Your task to perform on an android device: turn pop-ups off in chrome Image 0: 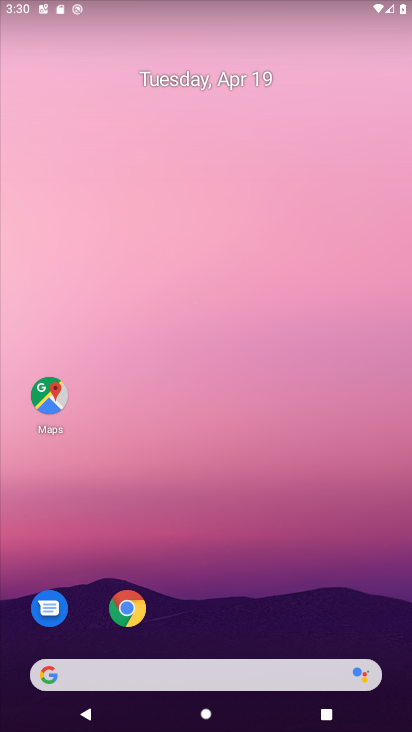
Step 0: click (133, 604)
Your task to perform on an android device: turn pop-ups off in chrome Image 1: 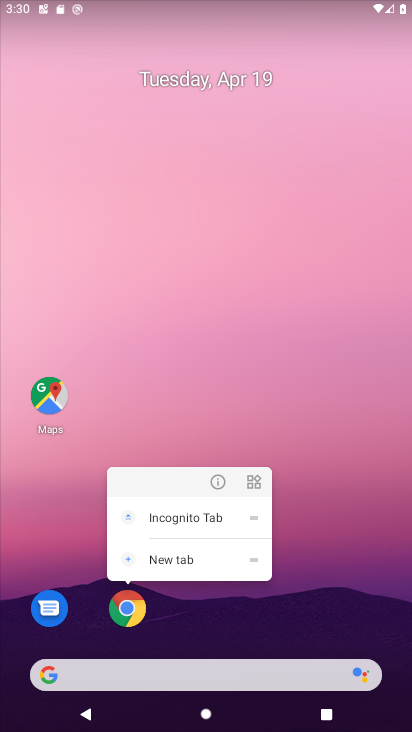
Step 1: click (377, 531)
Your task to perform on an android device: turn pop-ups off in chrome Image 2: 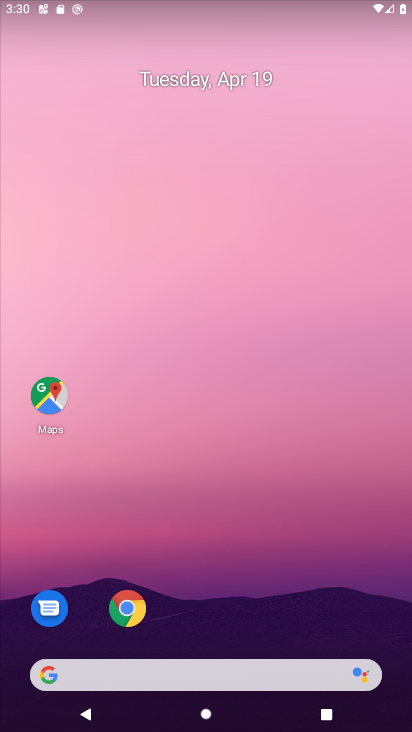
Step 2: drag from (295, 588) to (347, 123)
Your task to perform on an android device: turn pop-ups off in chrome Image 3: 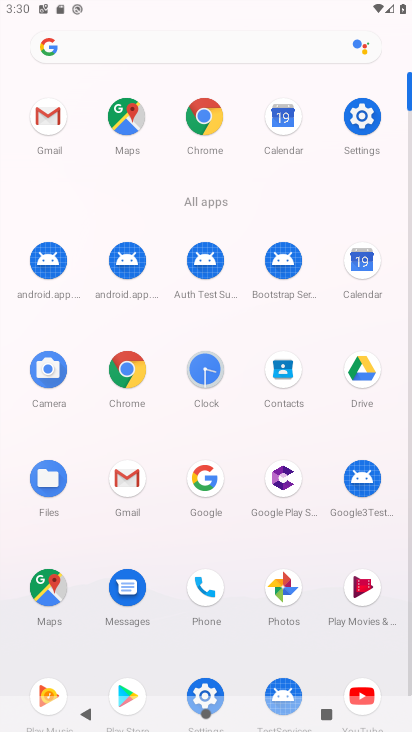
Step 3: click (124, 374)
Your task to perform on an android device: turn pop-ups off in chrome Image 4: 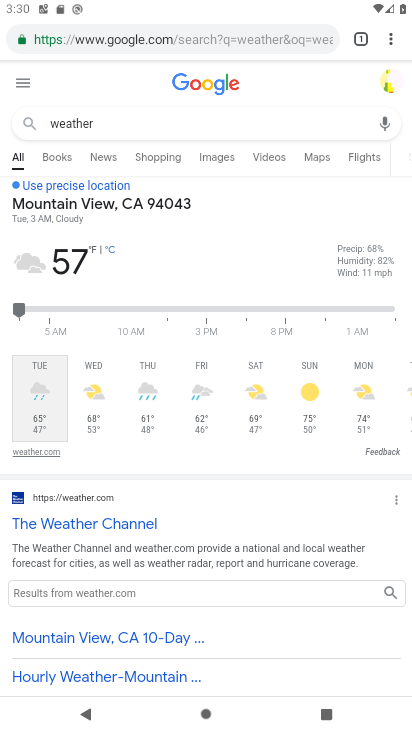
Step 4: drag from (392, 36) to (249, 441)
Your task to perform on an android device: turn pop-ups off in chrome Image 5: 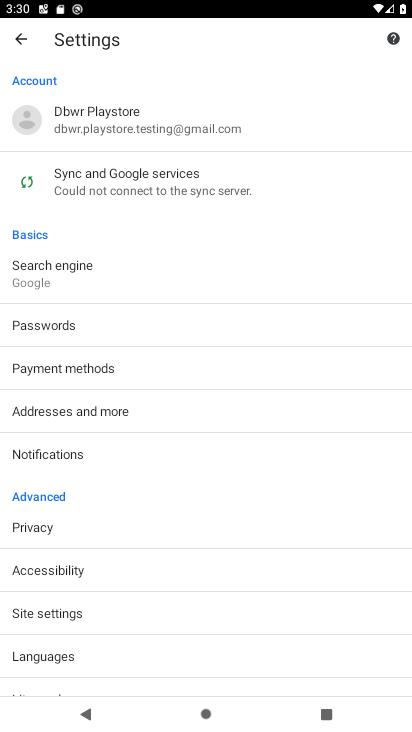
Step 5: drag from (175, 519) to (249, 221)
Your task to perform on an android device: turn pop-ups off in chrome Image 6: 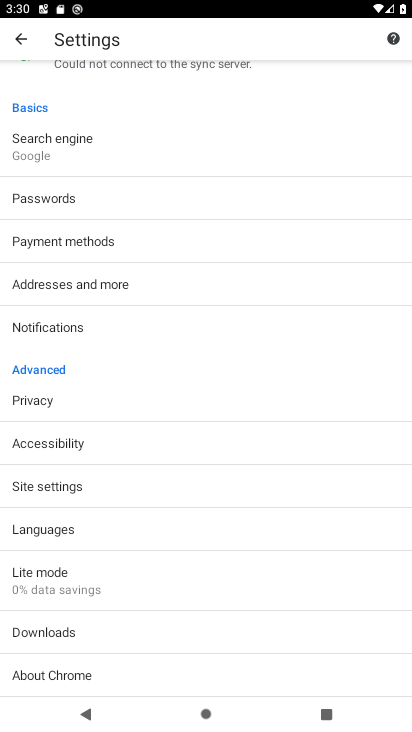
Step 6: click (77, 482)
Your task to perform on an android device: turn pop-ups off in chrome Image 7: 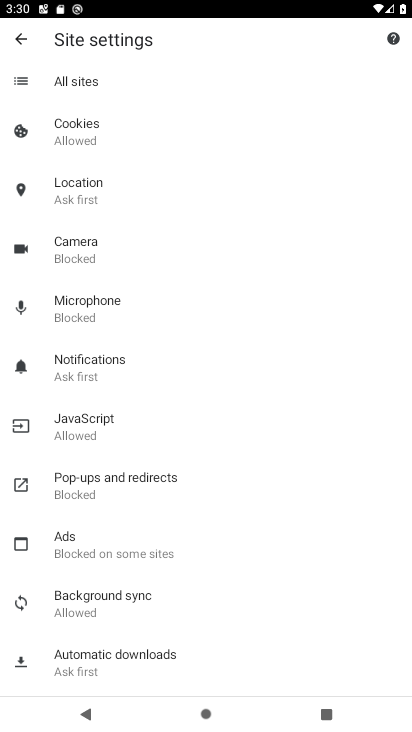
Step 7: click (99, 479)
Your task to perform on an android device: turn pop-ups off in chrome Image 8: 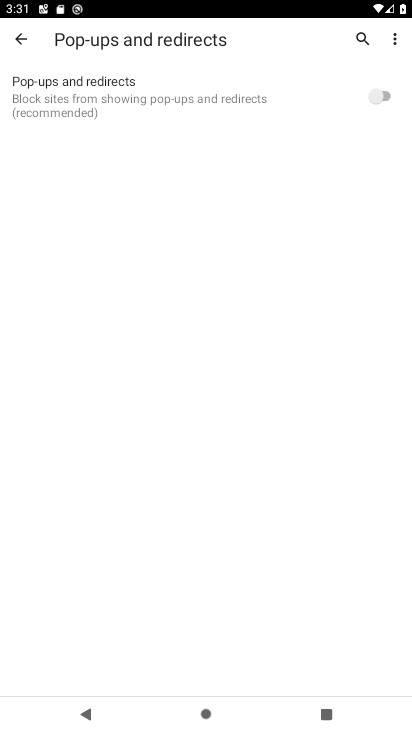
Step 8: task complete